Your task to perform on an android device: turn pop-ups on in chrome Image 0: 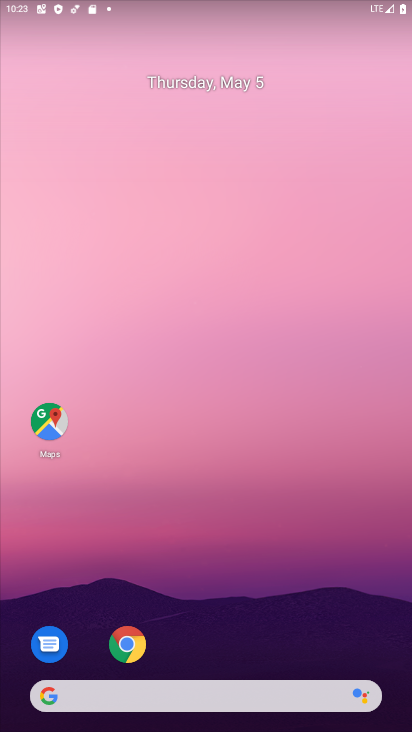
Step 0: click (138, 636)
Your task to perform on an android device: turn pop-ups on in chrome Image 1: 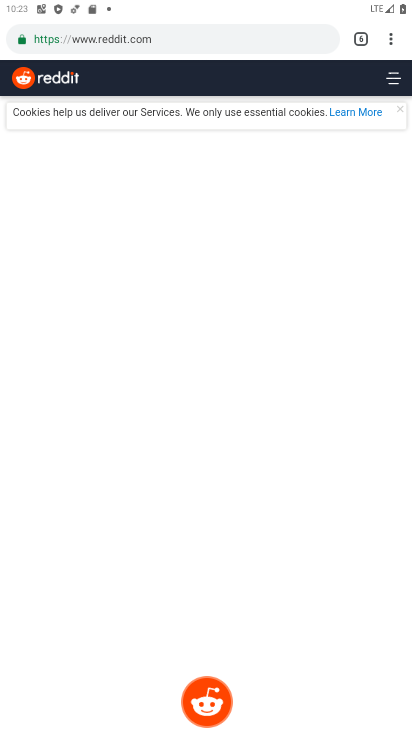
Step 1: click (388, 33)
Your task to perform on an android device: turn pop-ups on in chrome Image 2: 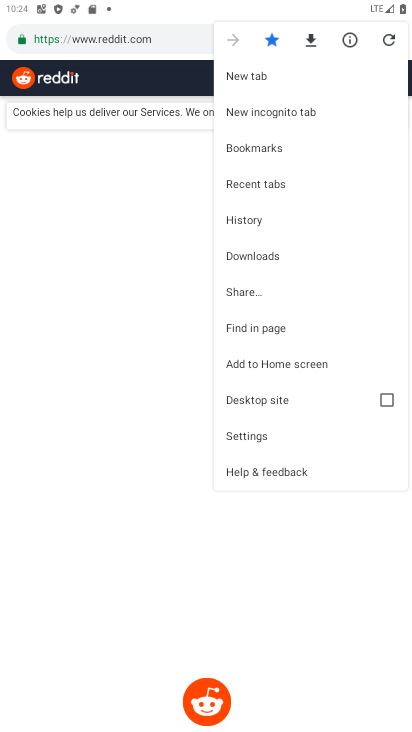
Step 2: click (242, 428)
Your task to perform on an android device: turn pop-ups on in chrome Image 3: 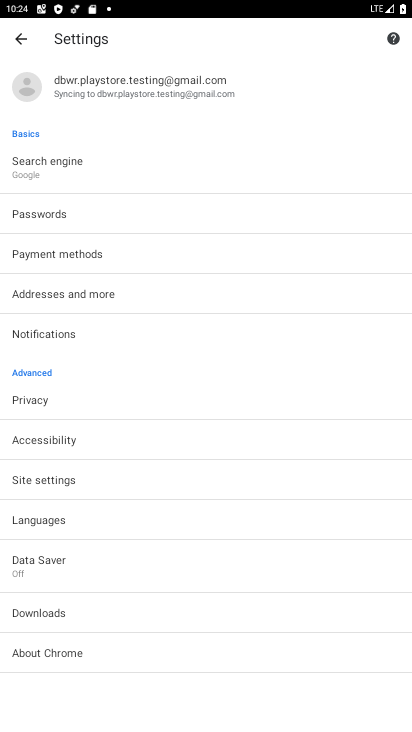
Step 3: click (61, 489)
Your task to perform on an android device: turn pop-ups on in chrome Image 4: 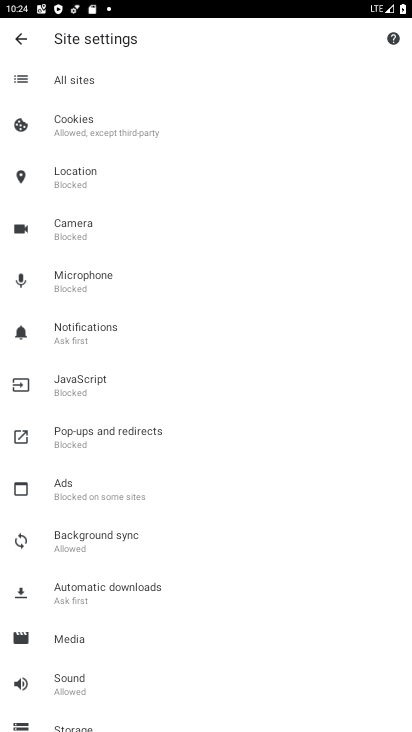
Step 4: click (49, 424)
Your task to perform on an android device: turn pop-ups on in chrome Image 5: 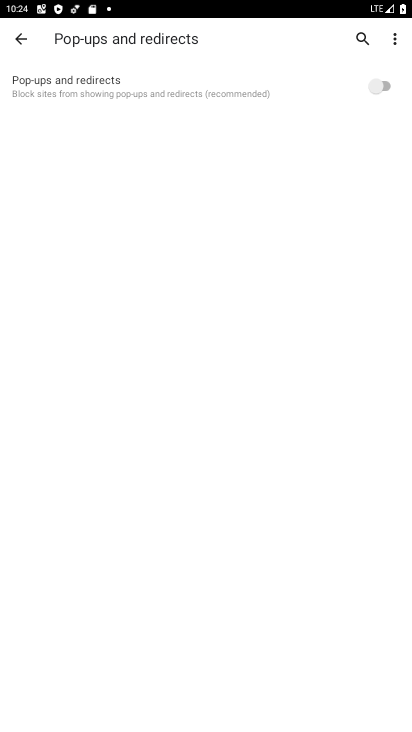
Step 5: click (376, 79)
Your task to perform on an android device: turn pop-ups on in chrome Image 6: 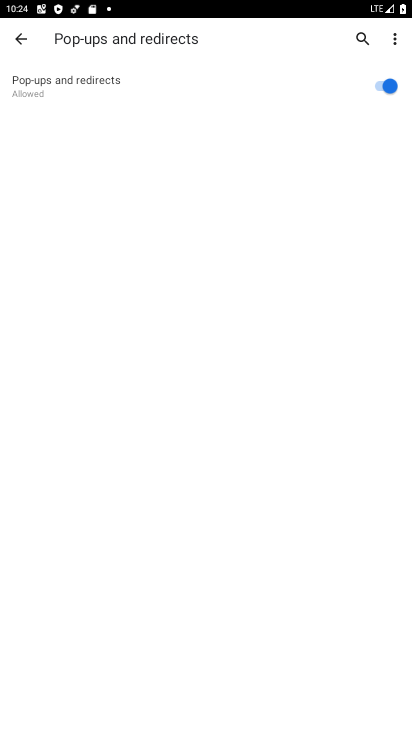
Step 6: task complete